Your task to perform on an android device: uninstall "Google Pay: Save, Pay, Manage" Image 0: 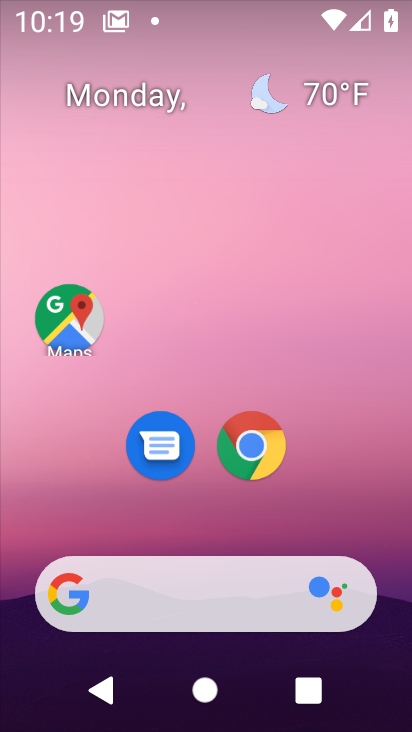
Step 0: press home button
Your task to perform on an android device: uninstall "Google Pay: Save, Pay, Manage" Image 1: 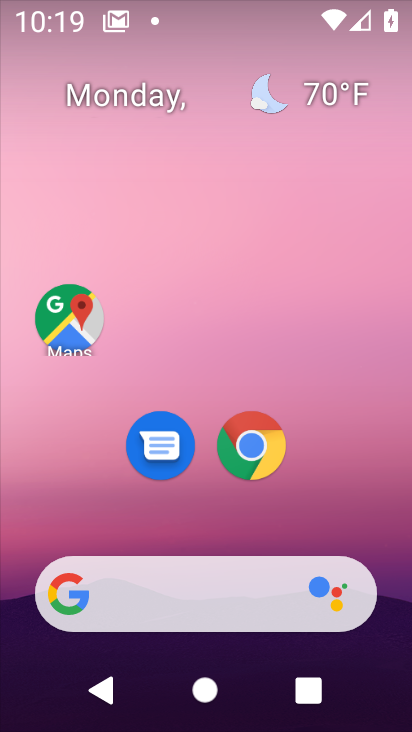
Step 1: drag from (202, 639) to (280, 133)
Your task to perform on an android device: uninstall "Google Pay: Save, Pay, Manage" Image 2: 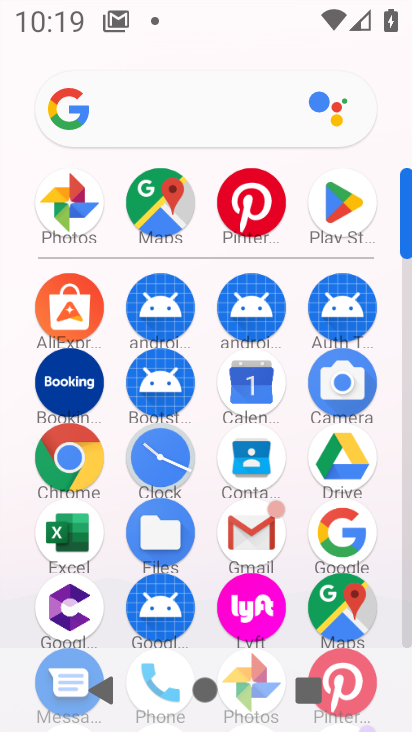
Step 2: click (345, 232)
Your task to perform on an android device: uninstall "Google Pay: Save, Pay, Manage" Image 3: 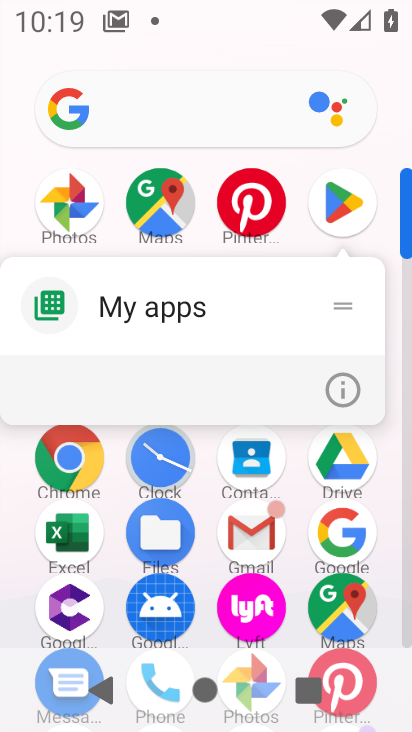
Step 3: click (333, 199)
Your task to perform on an android device: uninstall "Google Pay: Save, Pay, Manage" Image 4: 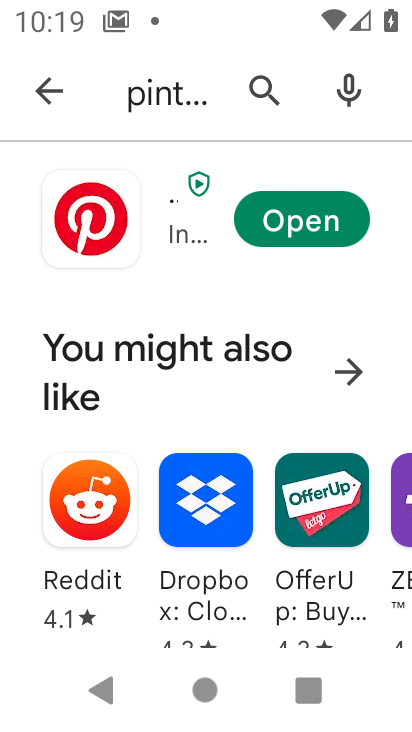
Step 4: click (53, 103)
Your task to perform on an android device: uninstall "Google Pay: Save, Pay, Manage" Image 5: 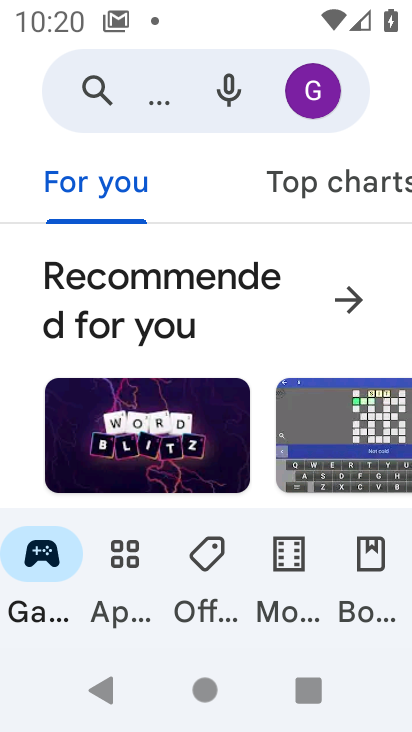
Step 5: click (119, 95)
Your task to perform on an android device: uninstall "Google Pay: Save, Pay, Manage" Image 6: 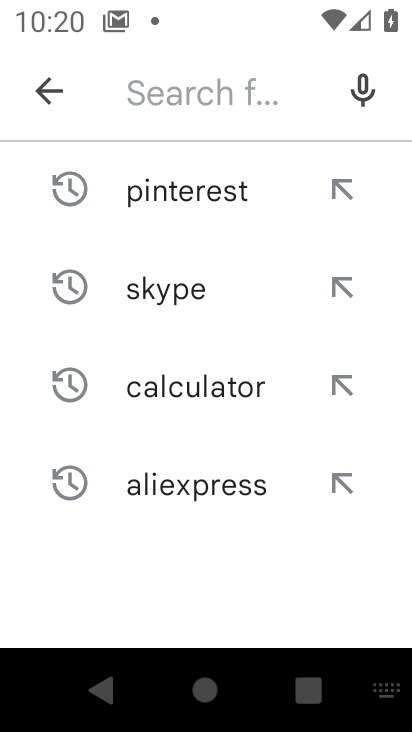
Step 6: type "Google Pay: Save, Pay, Manage"
Your task to perform on an android device: uninstall "Google Pay: Save, Pay, Manage" Image 7: 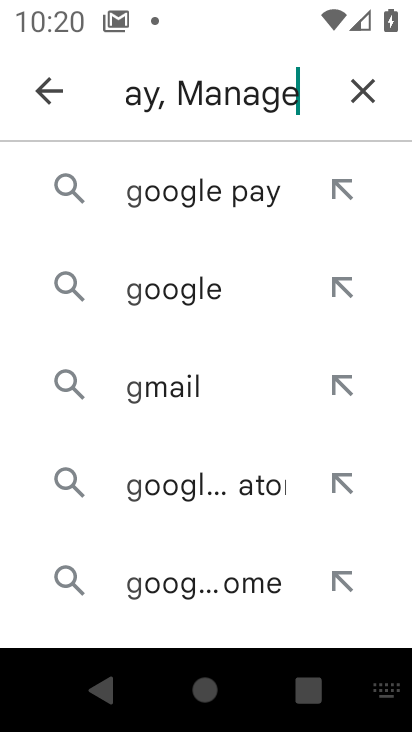
Step 7: type ""
Your task to perform on an android device: uninstall "Google Pay: Save, Pay, Manage" Image 8: 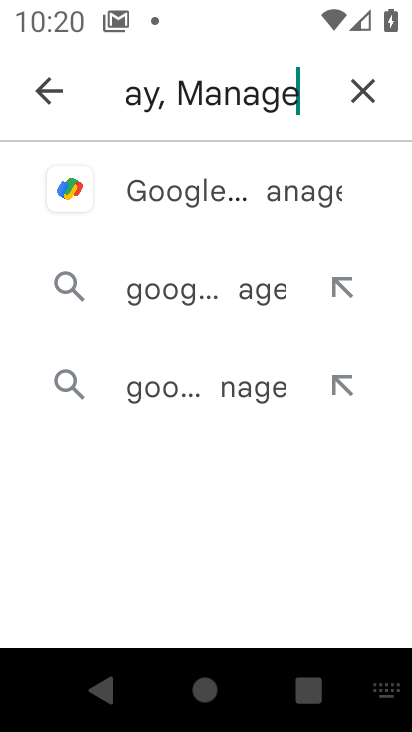
Step 8: click (232, 195)
Your task to perform on an android device: uninstall "Google Pay: Save, Pay, Manage" Image 9: 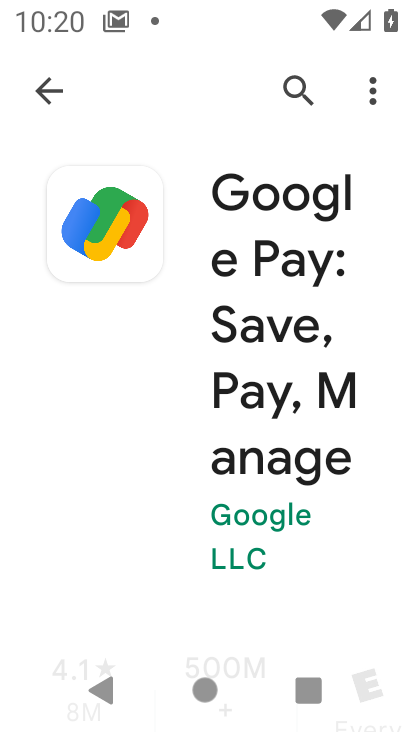
Step 9: task complete